Your task to perform on an android device: find which apps use the phone's location Image 0: 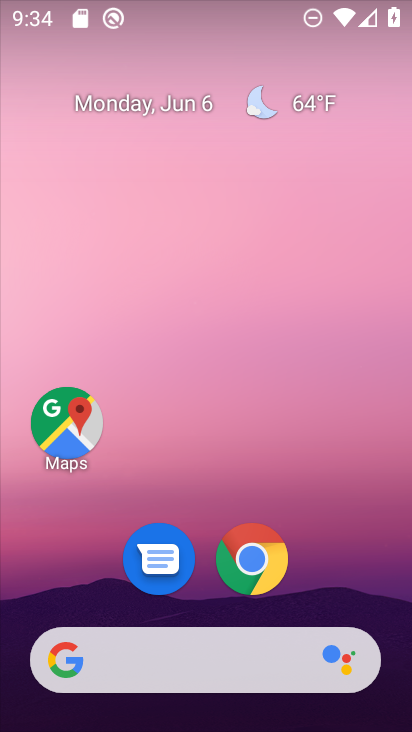
Step 0: drag from (224, 724) to (223, 117)
Your task to perform on an android device: find which apps use the phone's location Image 1: 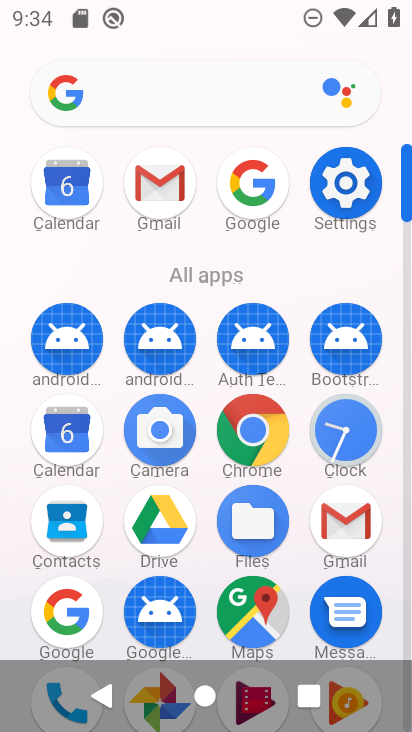
Step 1: click (340, 183)
Your task to perform on an android device: find which apps use the phone's location Image 2: 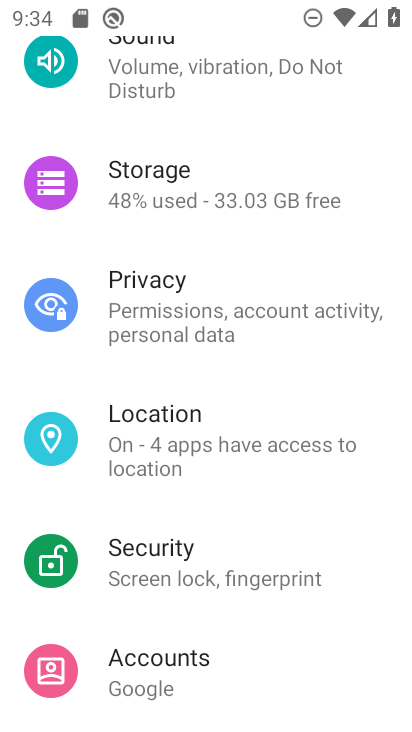
Step 2: click (174, 427)
Your task to perform on an android device: find which apps use the phone's location Image 3: 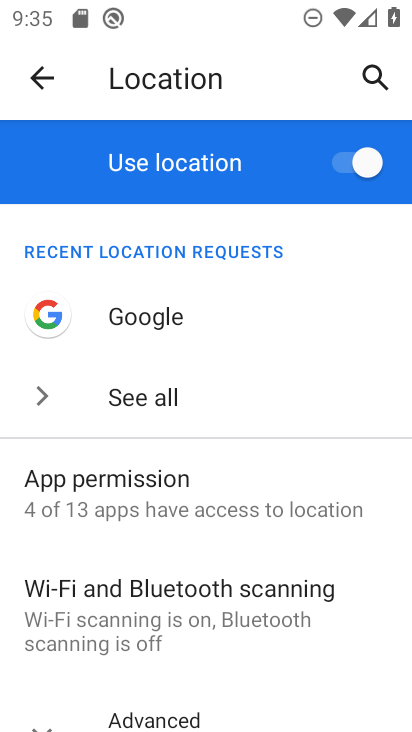
Step 3: click (50, 484)
Your task to perform on an android device: find which apps use the phone's location Image 4: 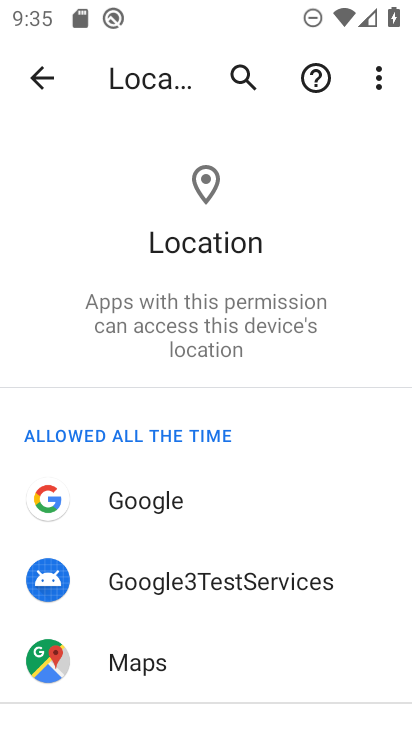
Step 4: task complete